Your task to perform on an android device: Go to display settings Image 0: 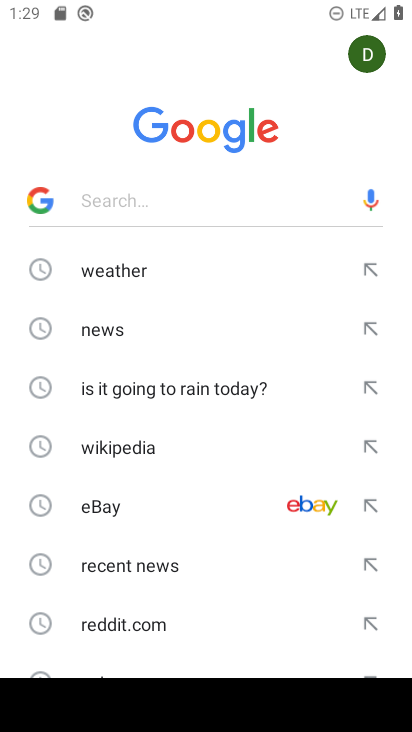
Step 0: press home button
Your task to perform on an android device: Go to display settings Image 1: 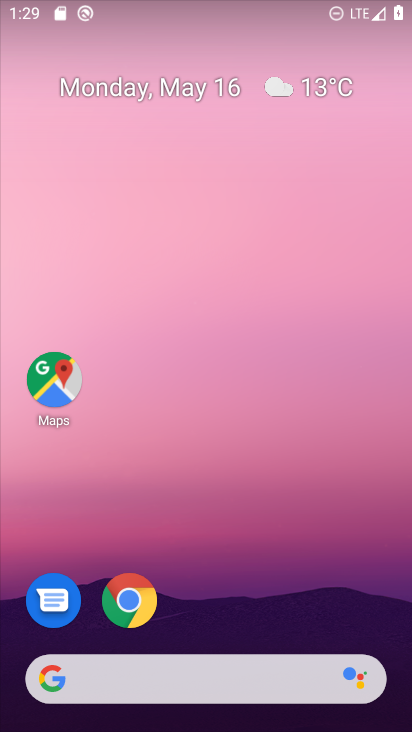
Step 1: drag from (224, 630) to (259, 56)
Your task to perform on an android device: Go to display settings Image 2: 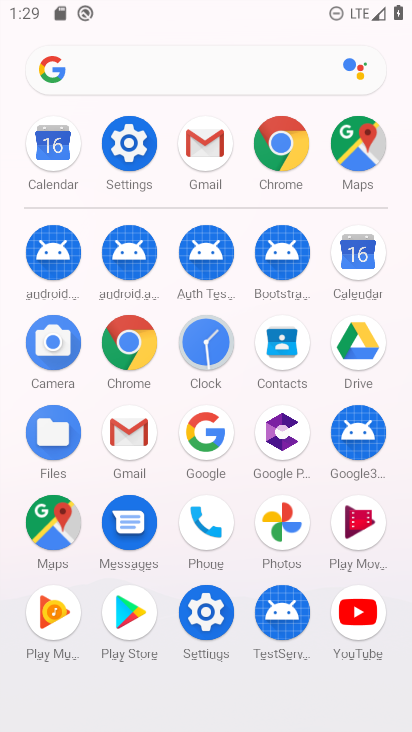
Step 2: click (127, 131)
Your task to perform on an android device: Go to display settings Image 3: 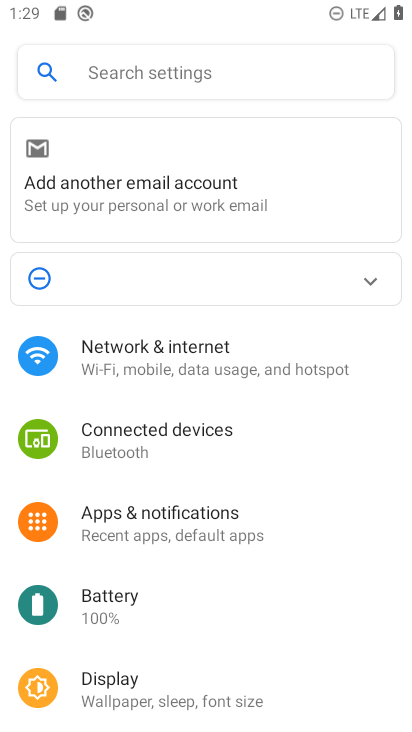
Step 3: click (191, 683)
Your task to perform on an android device: Go to display settings Image 4: 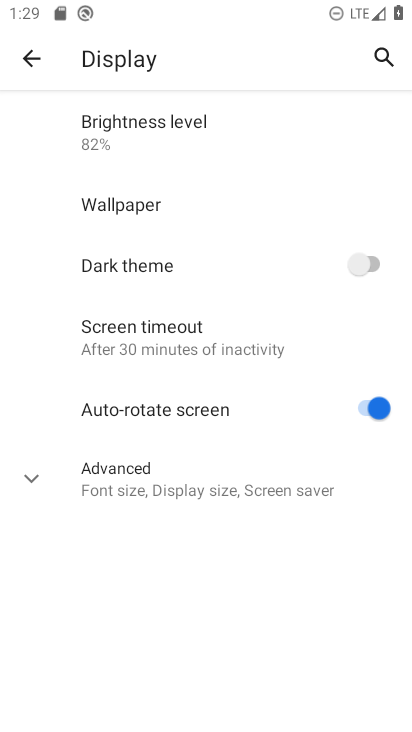
Step 4: click (34, 472)
Your task to perform on an android device: Go to display settings Image 5: 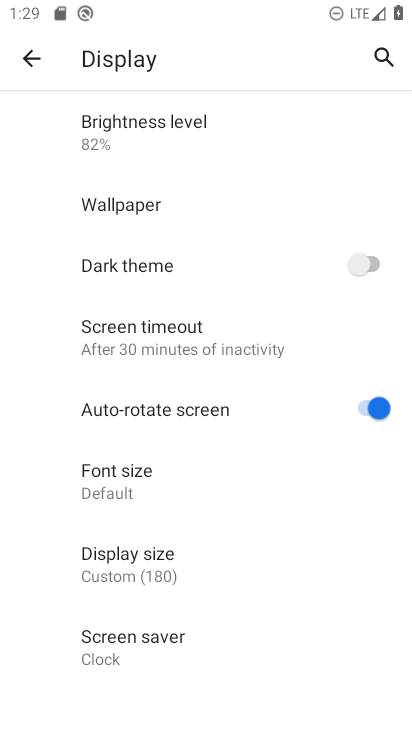
Step 5: task complete